Your task to perform on an android device: Open Amazon Image 0: 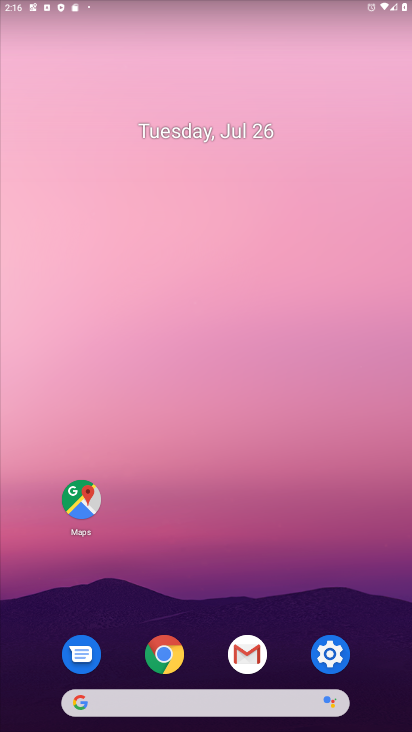
Step 0: press home button
Your task to perform on an android device: Open Amazon Image 1: 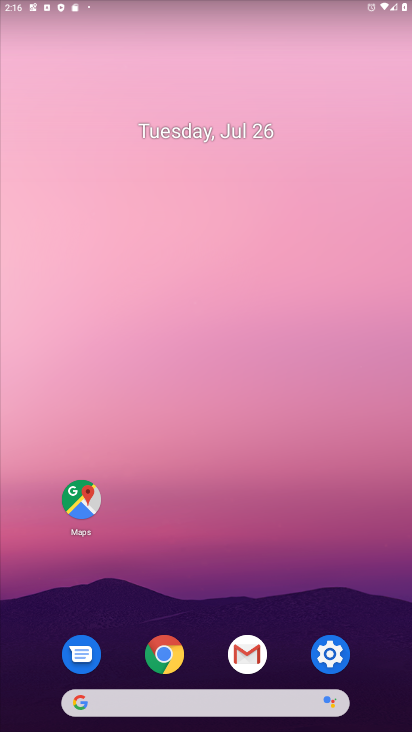
Step 1: click (146, 652)
Your task to perform on an android device: Open Amazon Image 2: 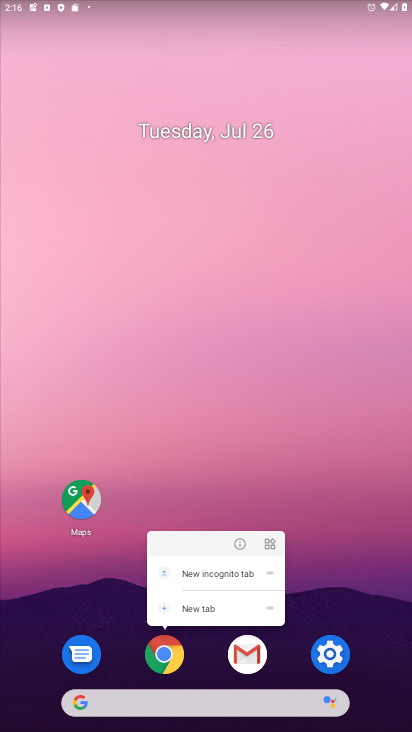
Step 2: click (158, 658)
Your task to perform on an android device: Open Amazon Image 3: 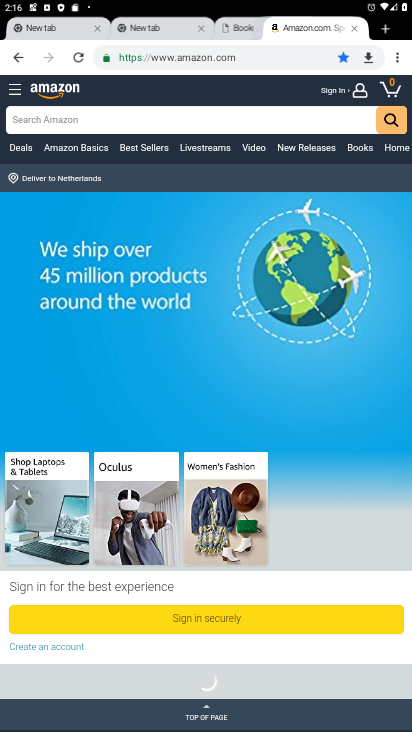
Step 3: click (241, 63)
Your task to perform on an android device: Open Amazon Image 4: 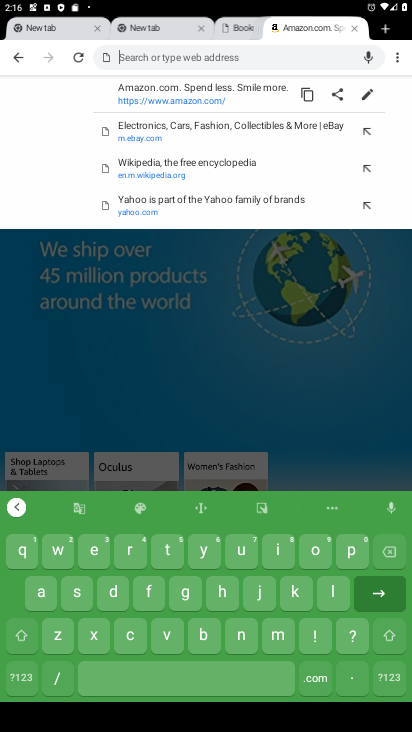
Step 4: click (200, 87)
Your task to perform on an android device: Open Amazon Image 5: 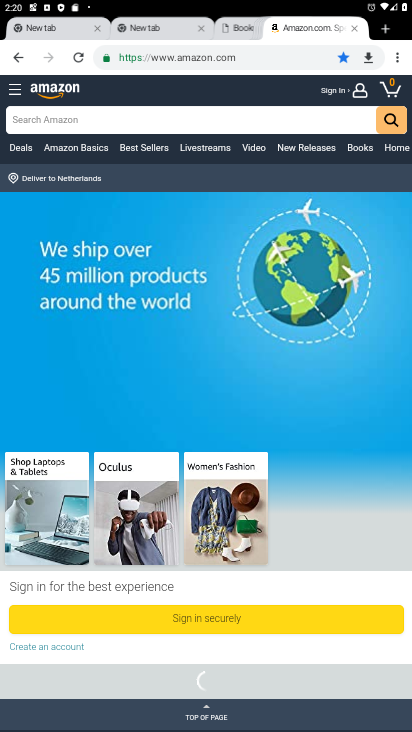
Step 5: task complete